Your task to perform on an android device: Add "razer nari" to the cart on amazon Image 0: 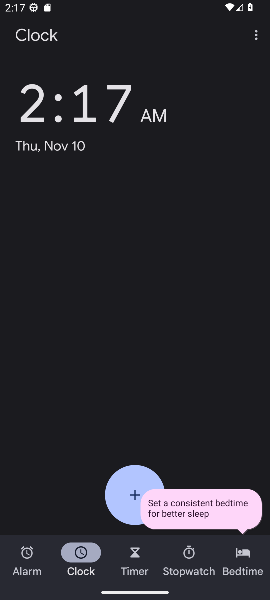
Step 0: press home button
Your task to perform on an android device: Add "razer nari" to the cart on amazon Image 1: 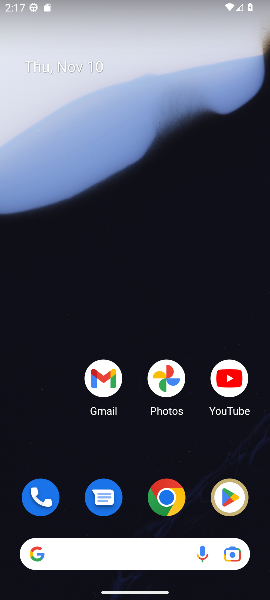
Step 1: drag from (67, 532) to (88, 181)
Your task to perform on an android device: Add "razer nari" to the cart on amazon Image 2: 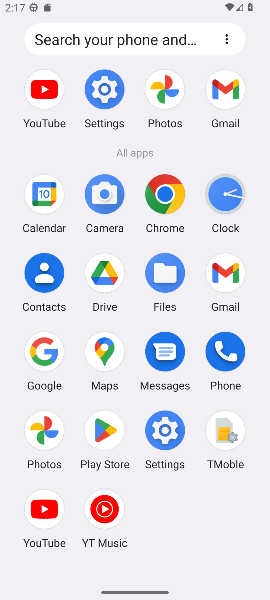
Step 2: click (41, 351)
Your task to perform on an android device: Add "razer nari" to the cart on amazon Image 3: 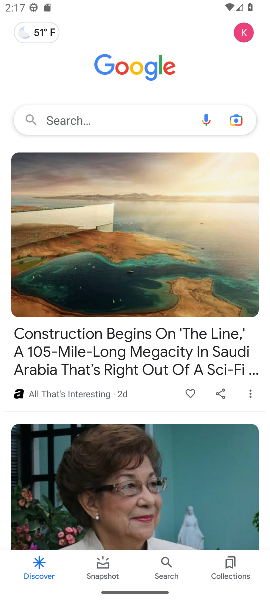
Step 3: click (99, 124)
Your task to perform on an android device: Add "razer nari" to the cart on amazon Image 4: 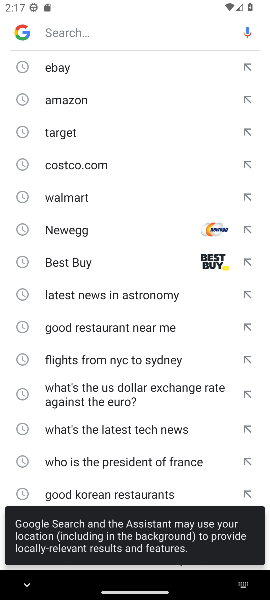
Step 4: type "amazon "
Your task to perform on an android device: Add "razer nari" to the cart on amazon Image 5: 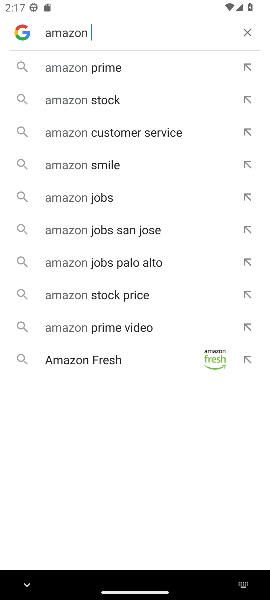
Step 5: click (99, 136)
Your task to perform on an android device: Add "razer nari" to the cart on amazon Image 6: 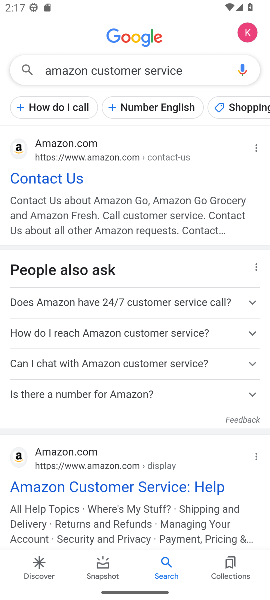
Step 6: click (9, 454)
Your task to perform on an android device: Add "razer nari" to the cart on amazon Image 7: 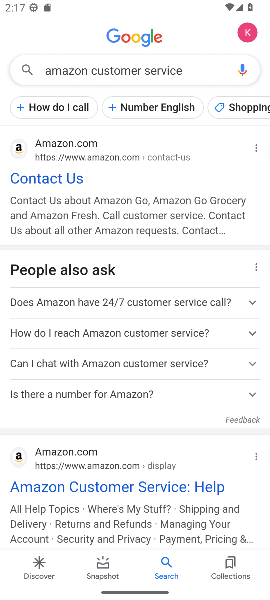
Step 7: click (21, 459)
Your task to perform on an android device: Add "razer nari" to the cart on amazon Image 8: 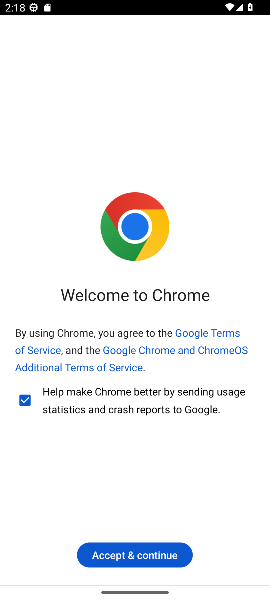
Step 8: click (139, 552)
Your task to perform on an android device: Add "razer nari" to the cart on amazon Image 9: 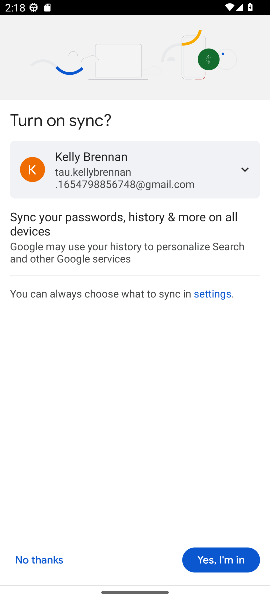
Step 9: click (24, 559)
Your task to perform on an android device: Add "razer nari" to the cart on amazon Image 10: 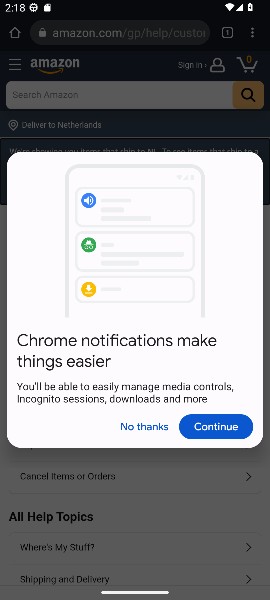
Step 10: click (128, 424)
Your task to perform on an android device: Add "razer nari" to the cart on amazon Image 11: 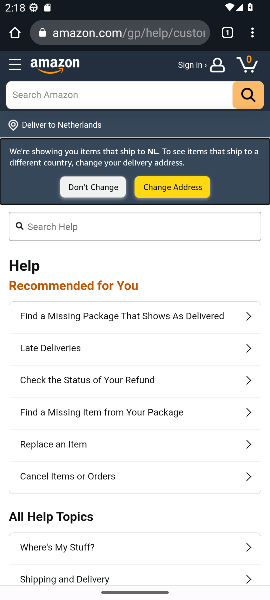
Step 11: click (64, 87)
Your task to perform on an android device: Add "razer nari" to the cart on amazon Image 12: 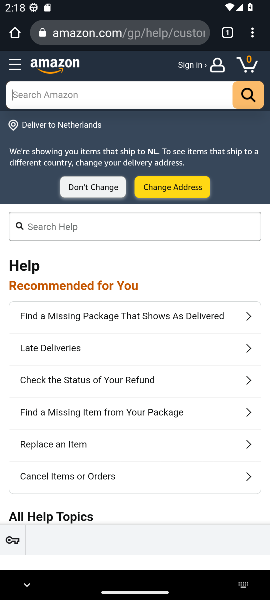
Step 12: type "razer nari "
Your task to perform on an android device: Add "razer nari" to the cart on amazon Image 13: 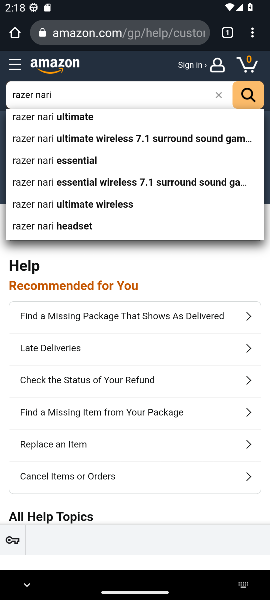
Step 13: click (56, 111)
Your task to perform on an android device: Add "razer nari" to the cart on amazon Image 14: 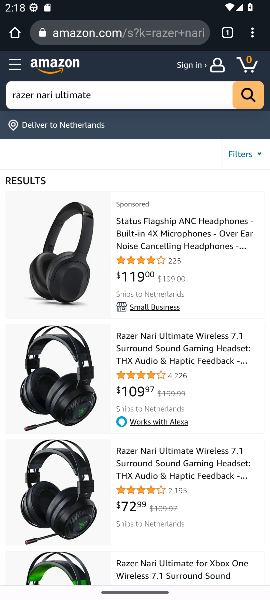
Step 14: click (160, 226)
Your task to perform on an android device: Add "razer nari" to the cart on amazon Image 15: 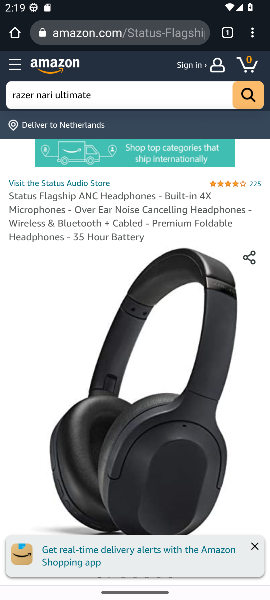
Step 15: drag from (146, 465) to (156, 202)
Your task to perform on an android device: Add "razer nari" to the cart on amazon Image 16: 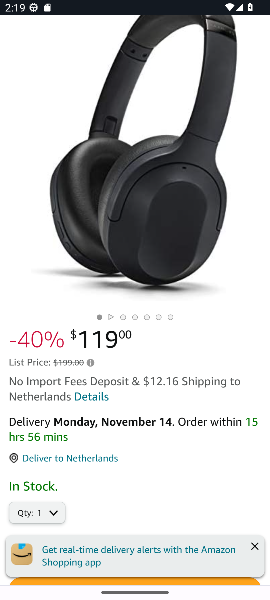
Step 16: drag from (144, 468) to (132, 141)
Your task to perform on an android device: Add "razer nari" to the cart on amazon Image 17: 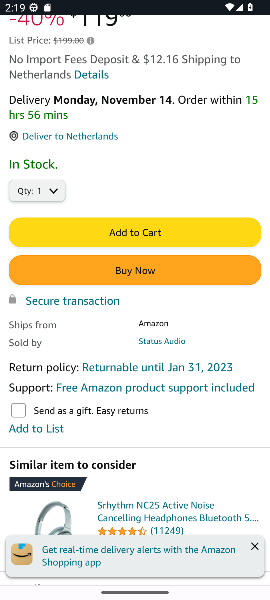
Step 17: click (155, 232)
Your task to perform on an android device: Add "razer nari" to the cart on amazon Image 18: 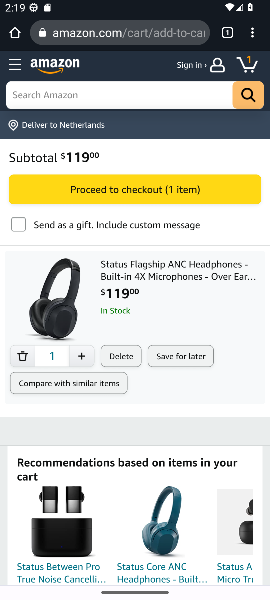
Step 18: task complete